Your task to perform on an android device: turn on priority inbox in the gmail app Image 0: 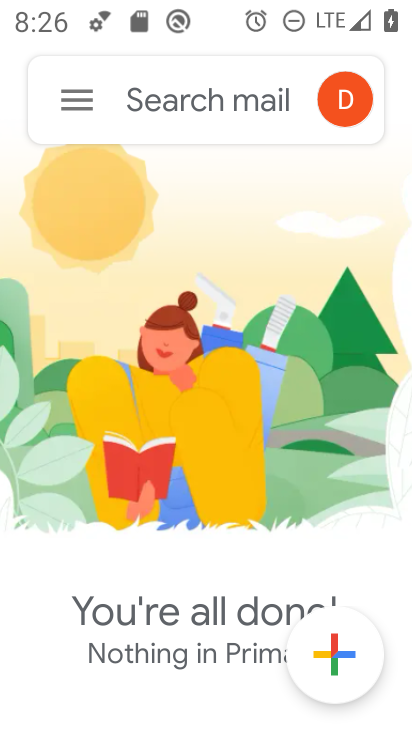
Step 0: task impossible